Your task to perform on an android device: How much does a 2 bedroom apartment rent for in Philadelphia? Image 0: 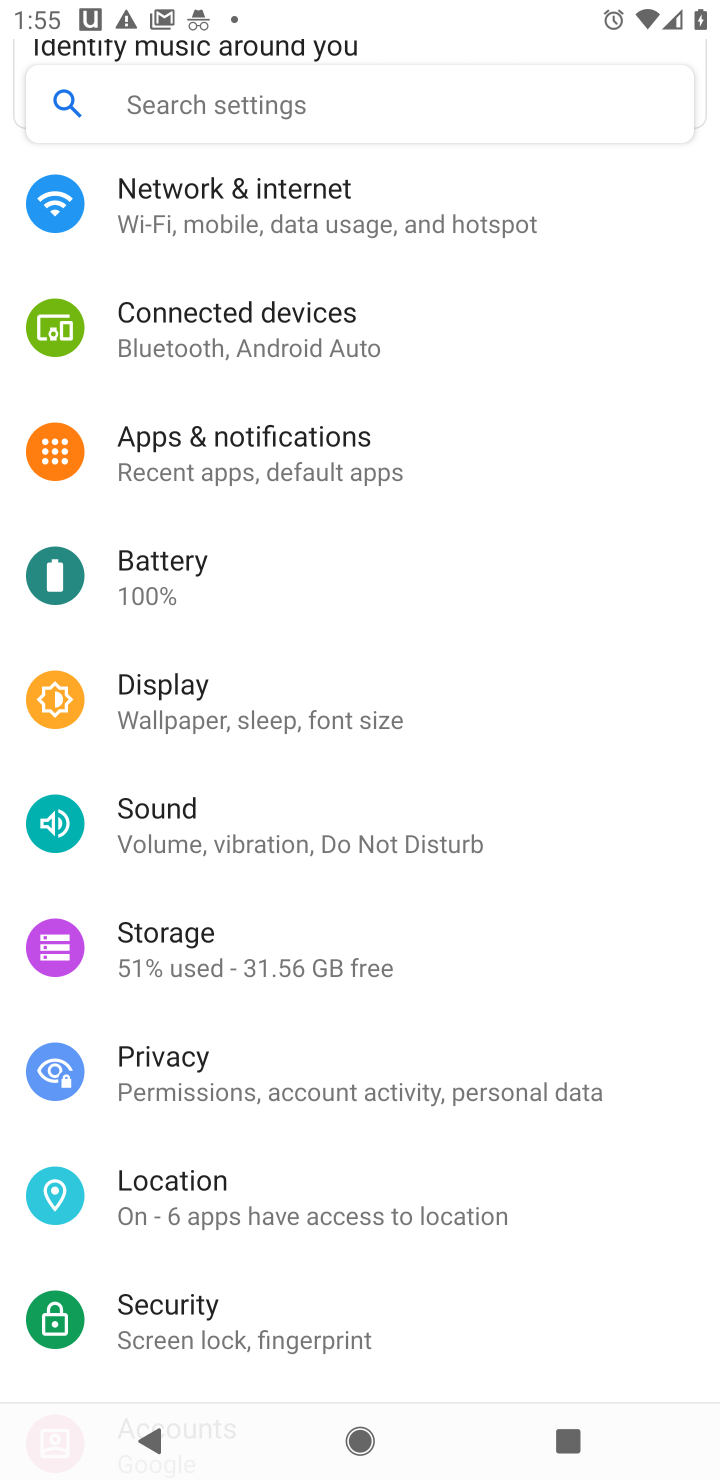
Step 0: press home button
Your task to perform on an android device: How much does a 2 bedroom apartment rent for in Philadelphia? Image 1: 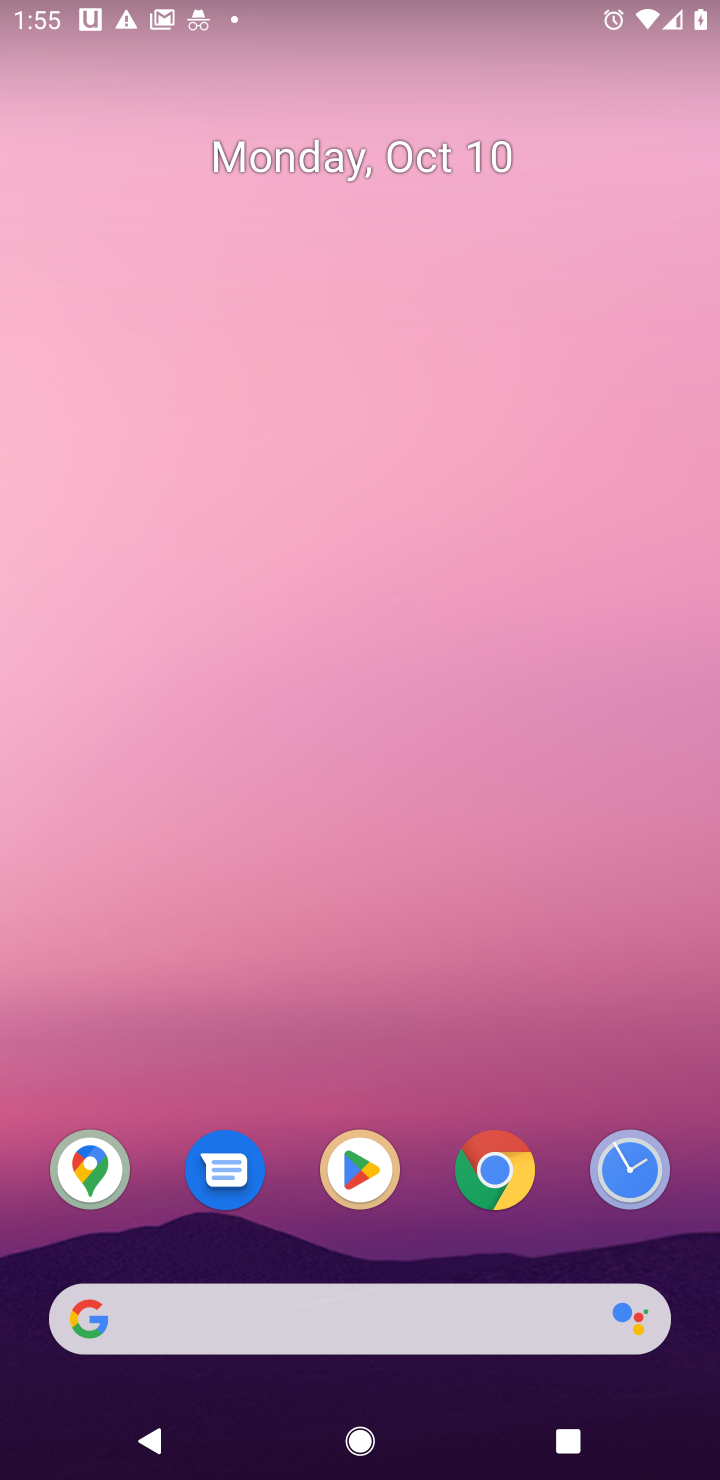
Step 1: click (499, 1193)
Your task to perform on an android device: How much does a 2 bedroom apartment rent for in Philadelphia? Image 2: 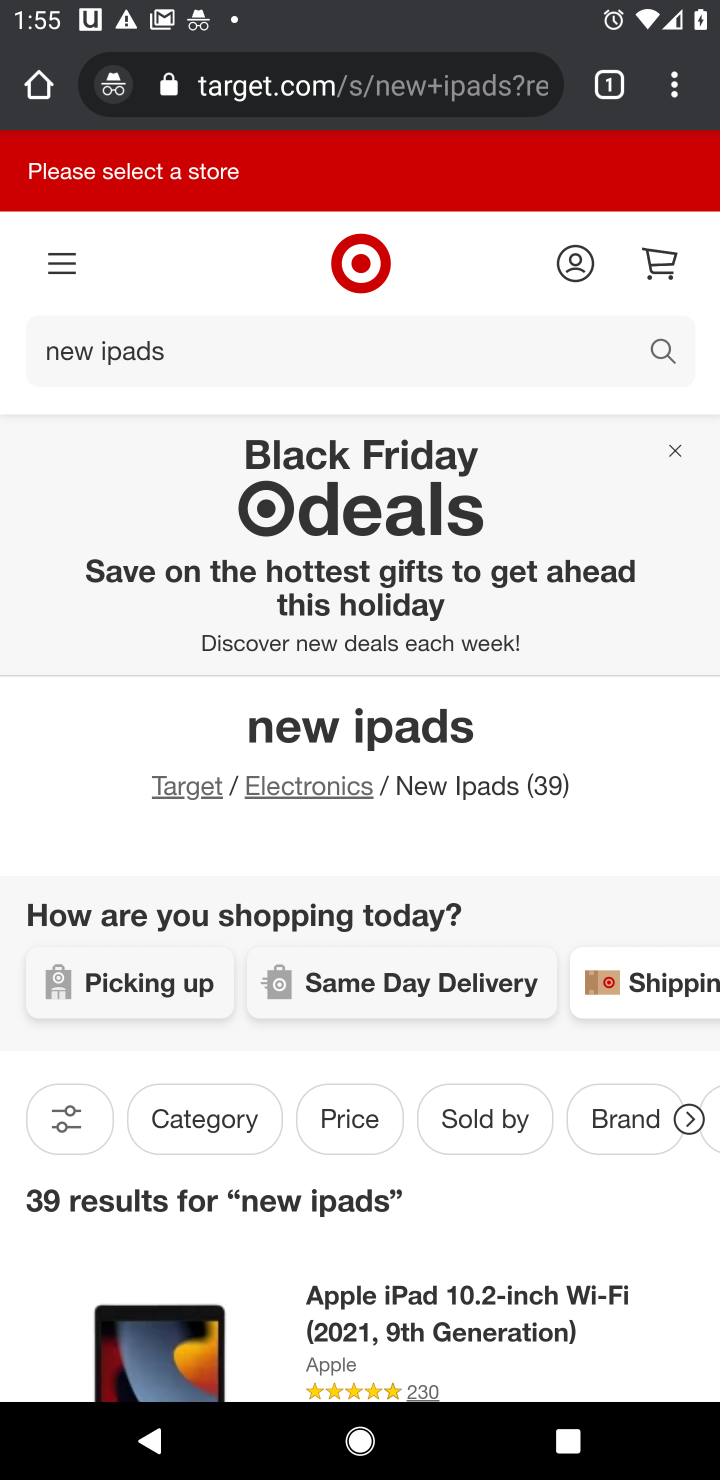
Step 2: click (361, 69)
Your task to perform on an android device: How much does a 2 bedroom apartment rent for in Philadelphia? Image 3: 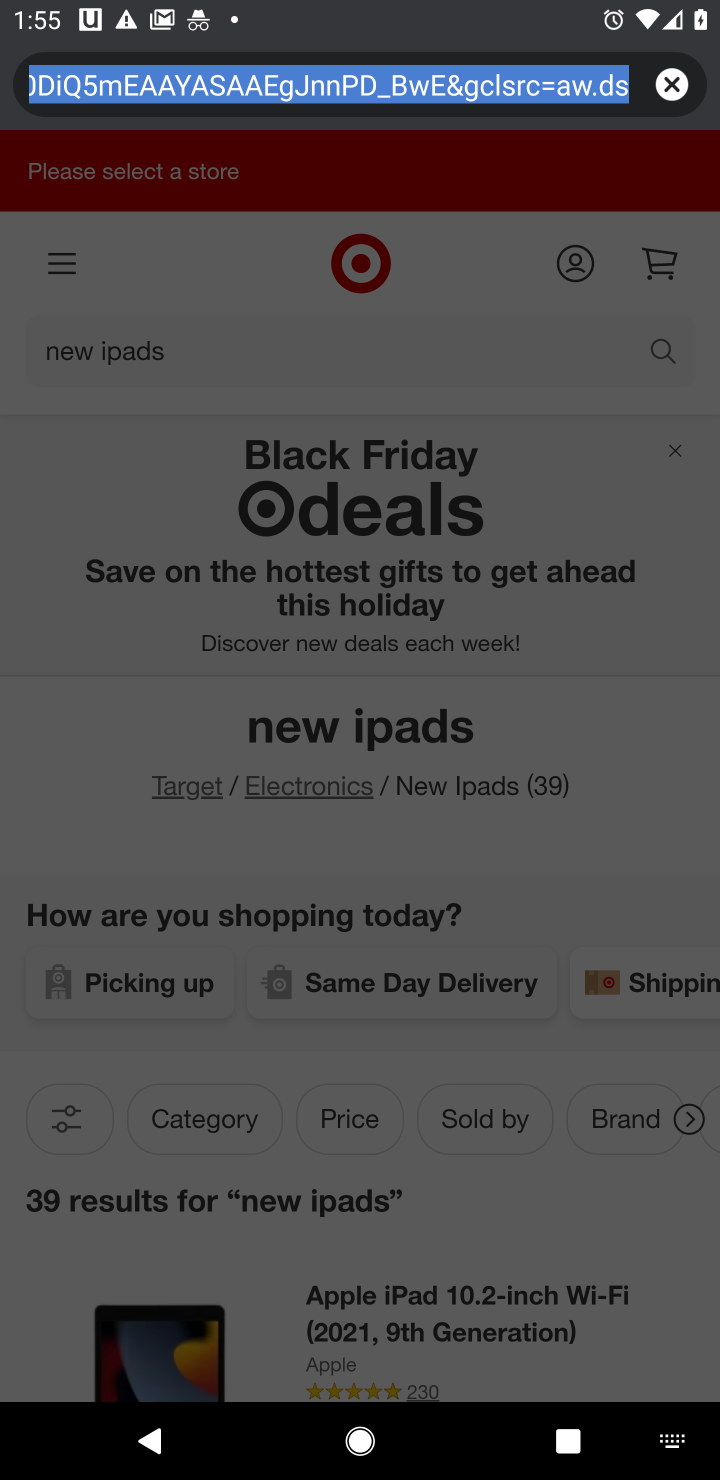
Step 3: click (673, 87)
Your task to perform on an android device: How much does a 2 bedroom apartment rent for in Philadelphia? Image 4: 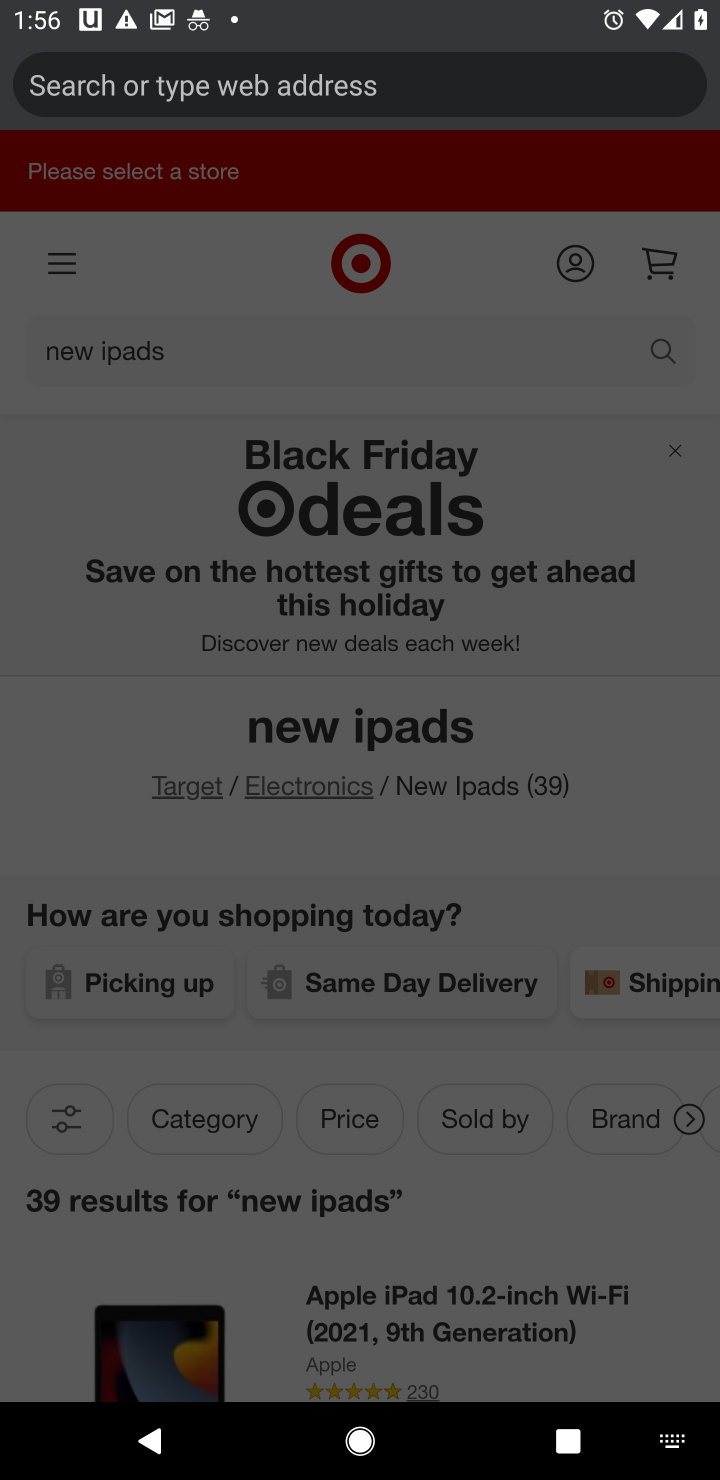
Step 4: type "2 bedroom apartment rent for in philadelphia"
Your task to perform on an android device: How much does a 2 bedroom apartment rent for in Philadelphia? Image 5: 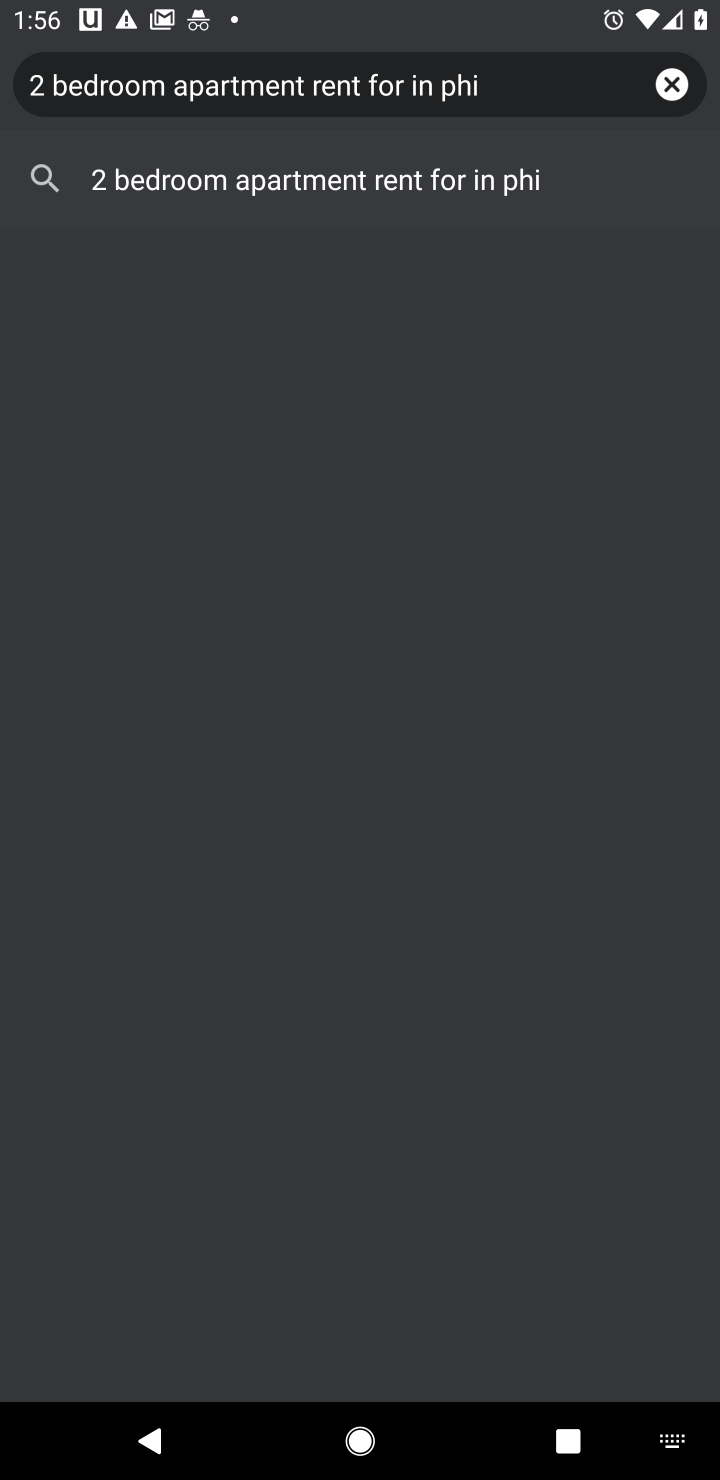
Step 5: click (167, 177)
Your task to perform on an android device: How much does a 2 bedroom apartment rent for in Philadelphia? Image 6: 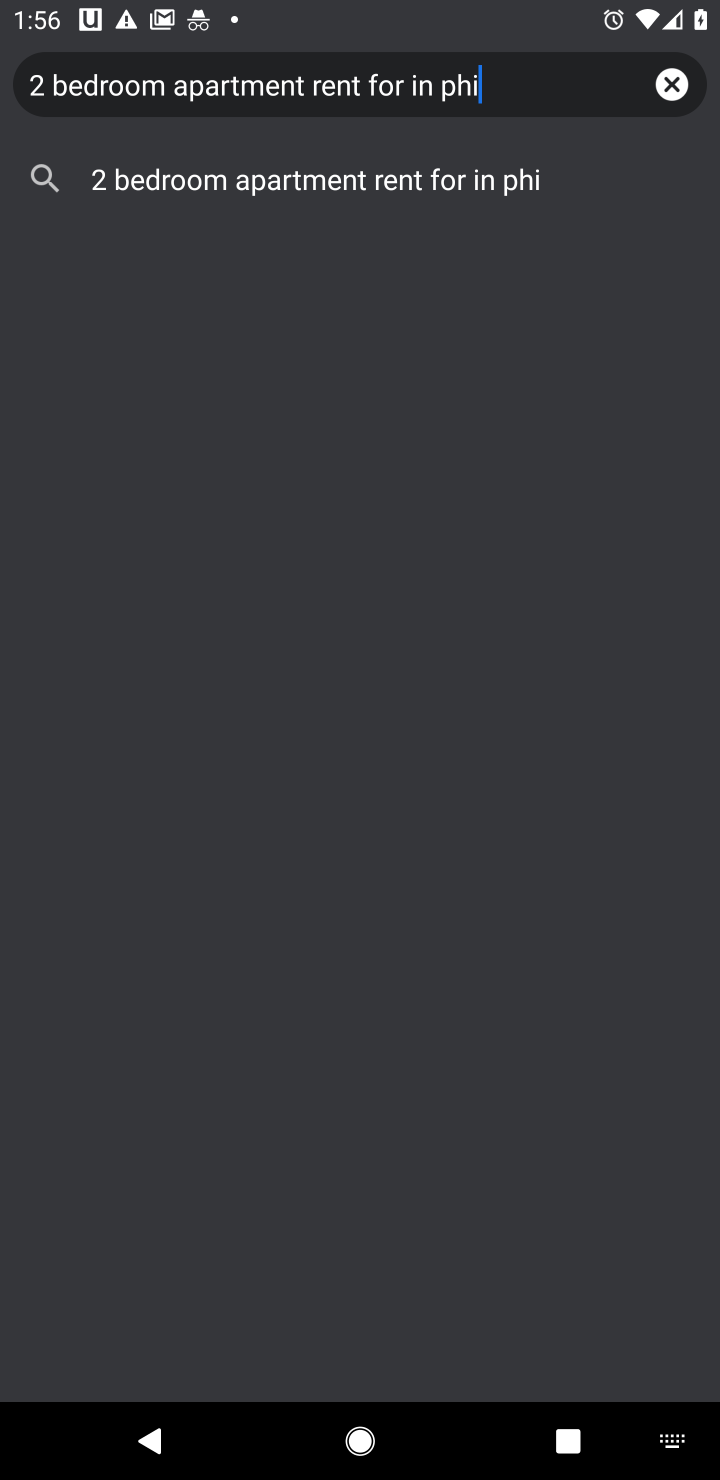
Step 6: click (167, 177)
Your task to perform on an android device: How much does a 2 bedroom apartment rent for in Philadelphia? Image 7: 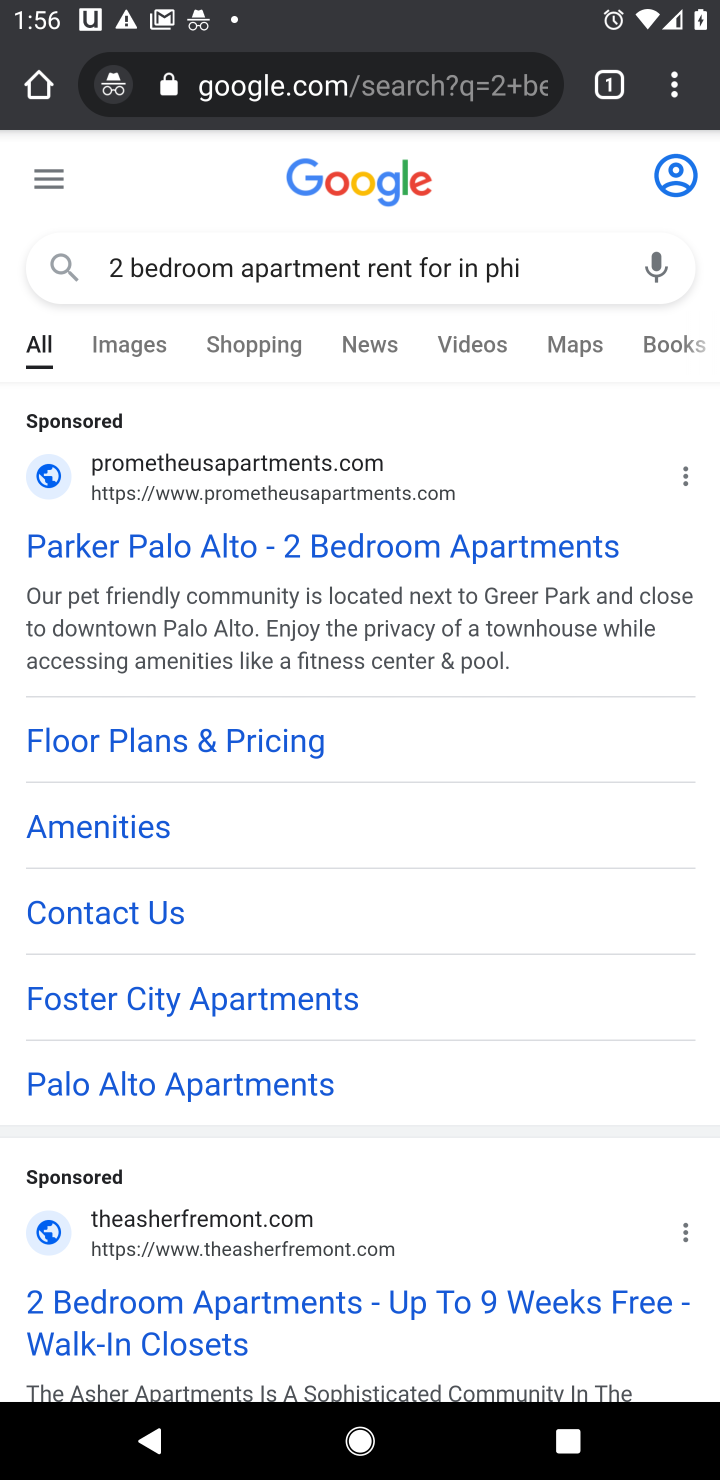
Step 7: task complete